Your task to perform on an android device: change timer sound Image 0: 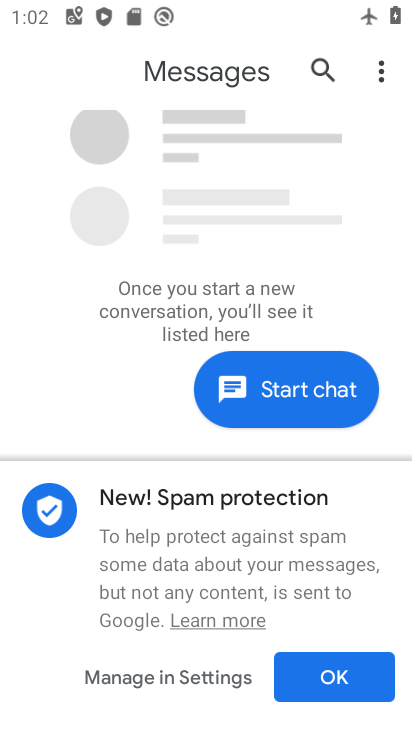
Step 0: press home button
Your task to perform on an android device: change timer sound Image 1: 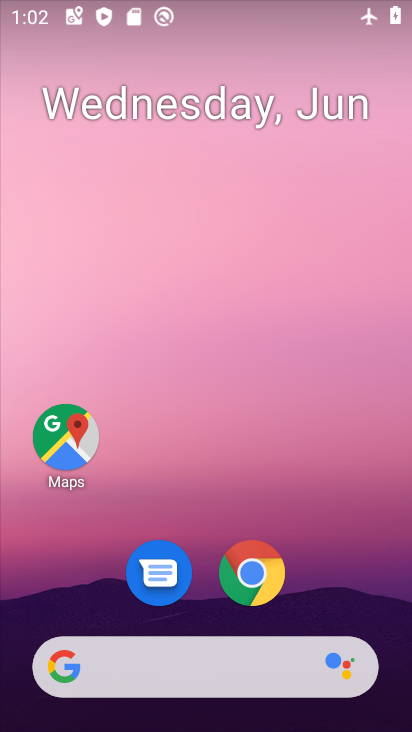
Step 1: drag from (356, 549) to (279, 75)
Your task to perform on an android device: change timer sound Image 2: 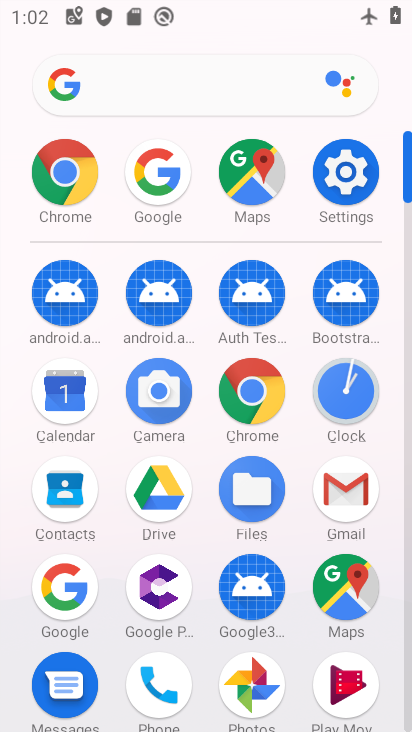
Step 2: click (330, 434)
Your task to perform on an android device: change timer sound Image 3: 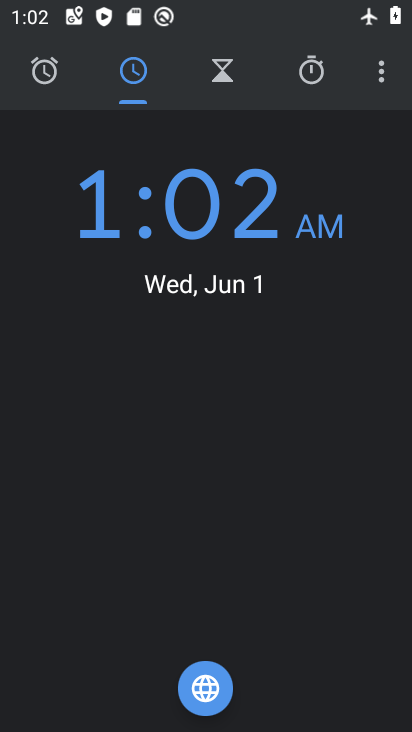
Step 3: drag from (378, 65) to (227, 150)
Your task to perform on an android device: change timer sound Image 4: 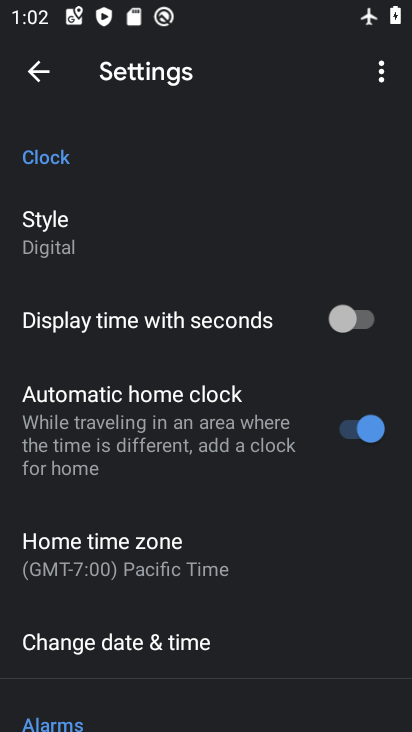
Step 4: drag from (216, 549) to (232, 267)
Your task to perform on an android device: change timer sound Image 5: 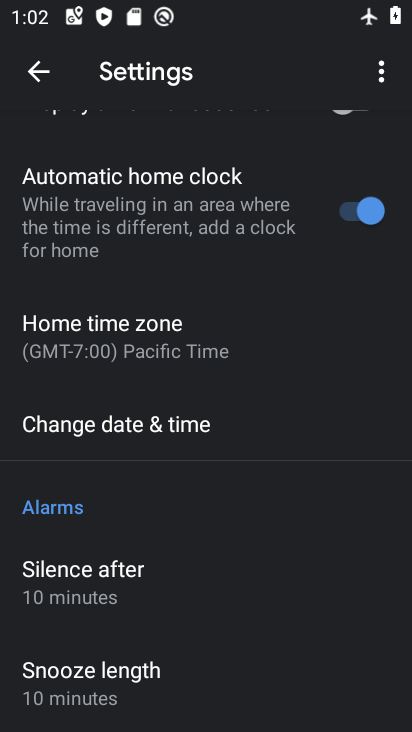
Step 5: drag from (197, 660) to (230, 295)
Your task to perform on an android device: change timer sound Image 6: 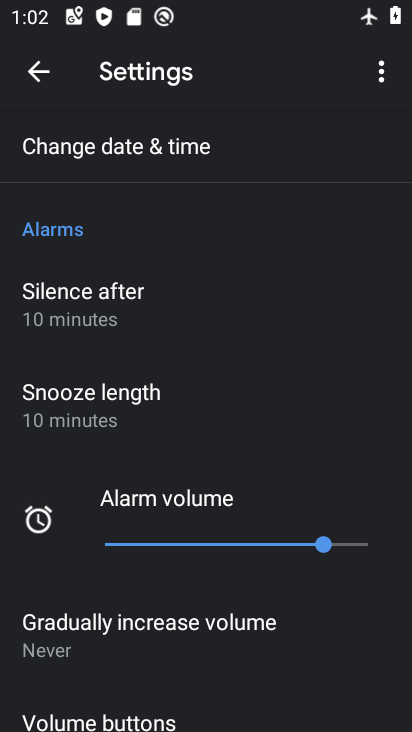
Step 6: drag from (226, 674) to (258, 234)
Your task to perform on an android device: change timer sound Image 7: 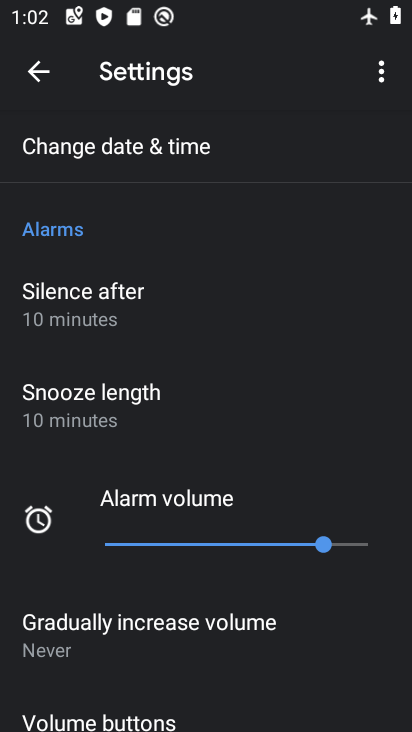
Step 7: drag from (302, 620) to (305, 227)
Your task to perform on an android device: change timer sound Image 8: 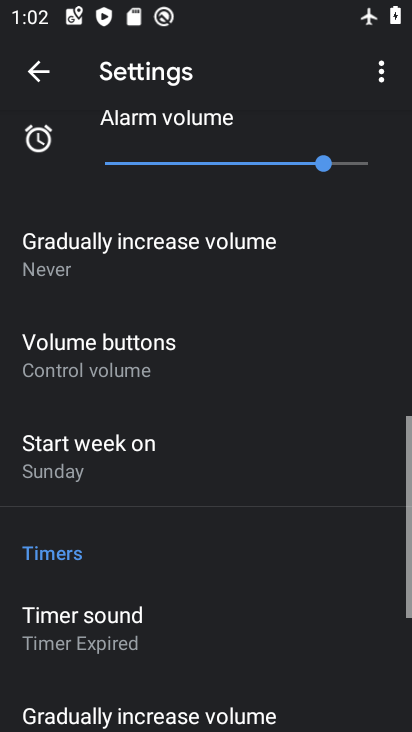
Step 8: drag from (291, 642) to (238, 308)
Your task to perform on an android device: change timer sound Image 9: 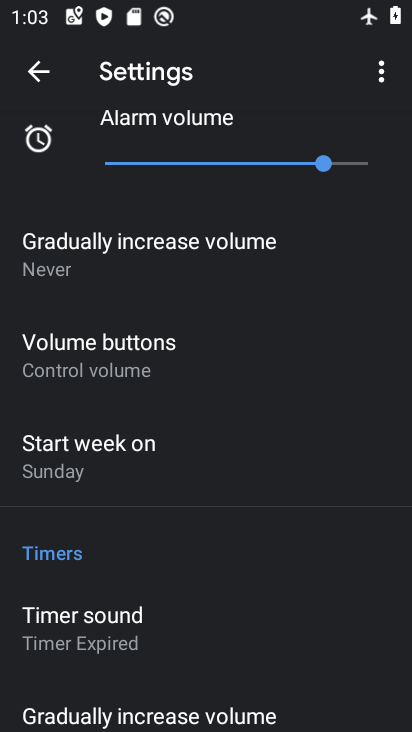
Step 9: click (102, 614)
Your task to perform on an android device: change timer sound Image 10: 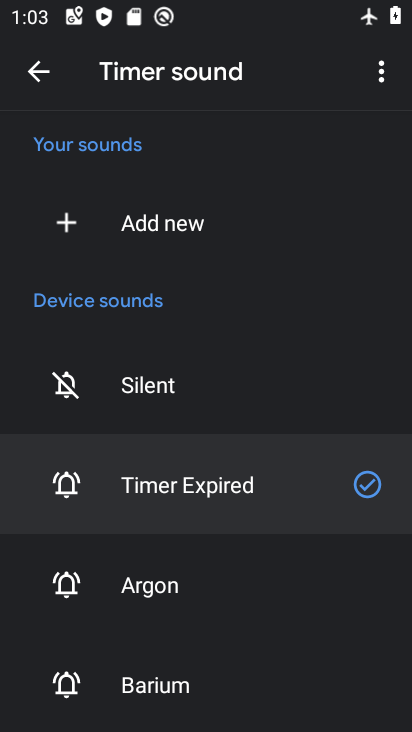
Step 10: click (203, 588)
Your task to perform on an android device: change timer sound Image 11: 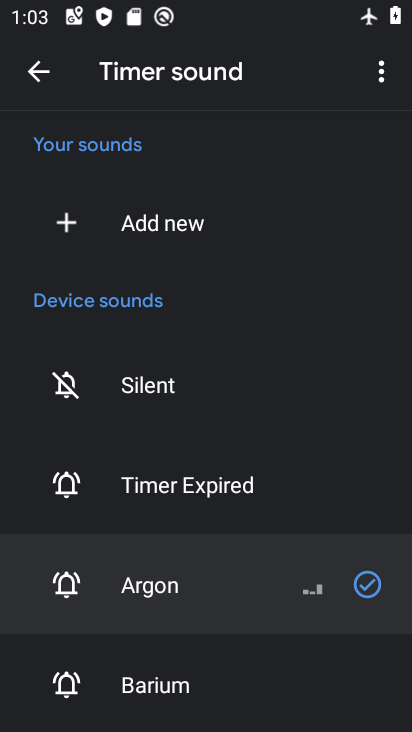
Step 11: task complete